Your task to perform on an android device: Show the shopping cart on amazon.com. Image 0: 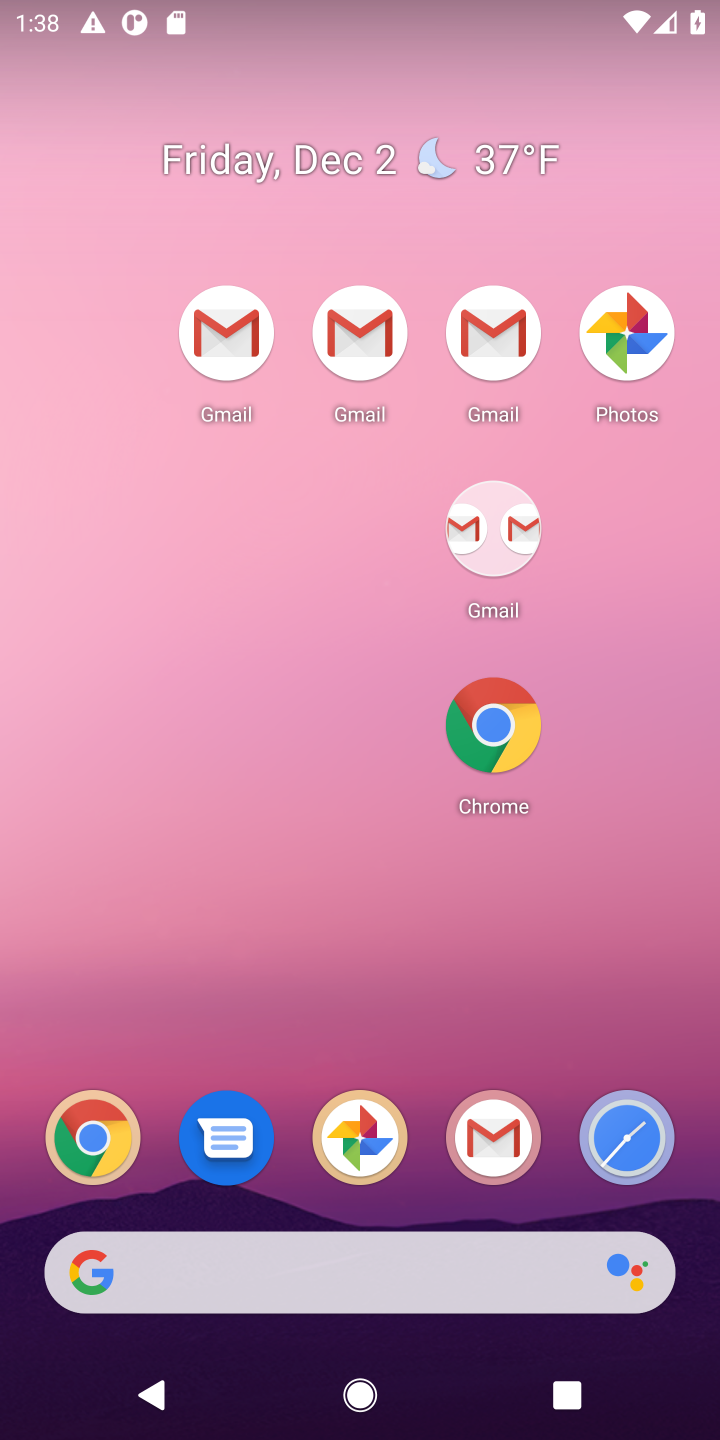
Step 0: drag from (197, 967) to (338, 160)
Your task to perform on an android device: Show the shopping cart on amazon.com. Image 1: 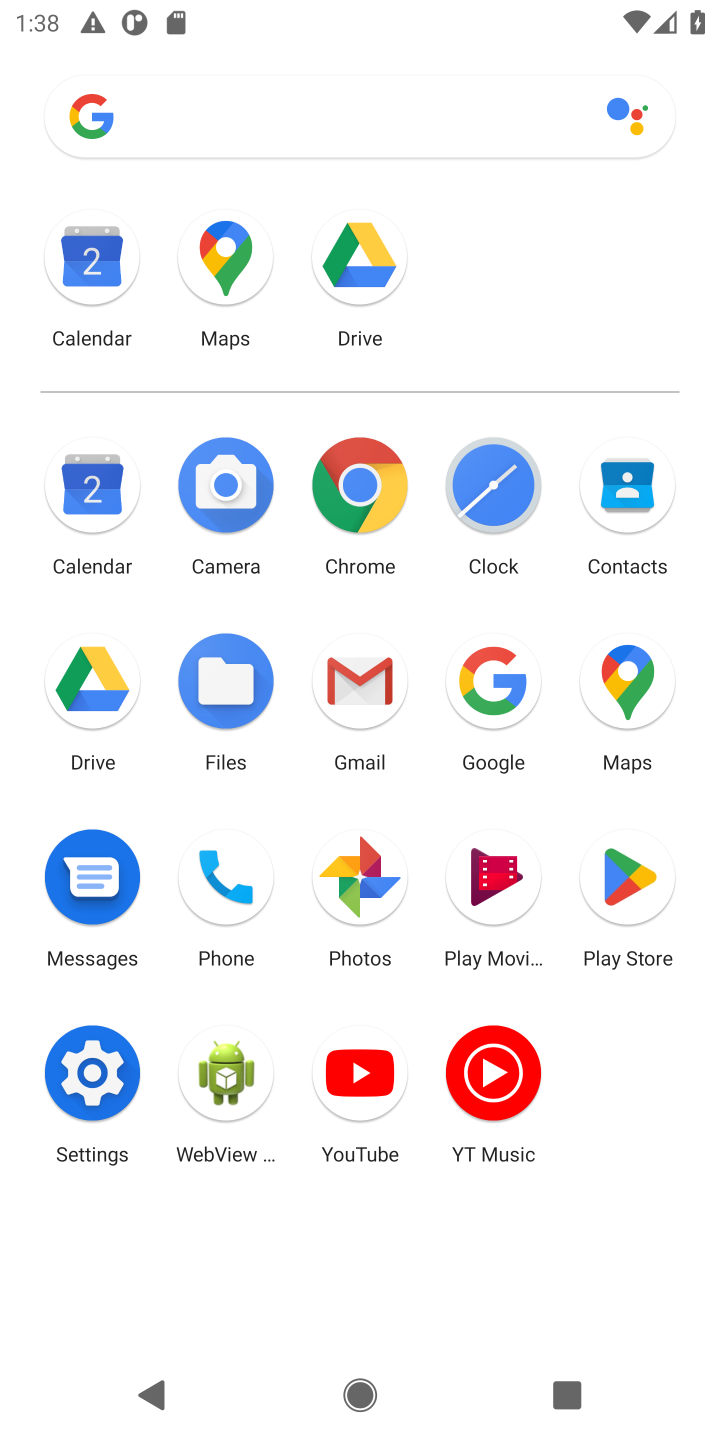
Step 1: click (477, 706)
Your task to perform on an android device: Show the shopping cart on amazon.com. Image 2: 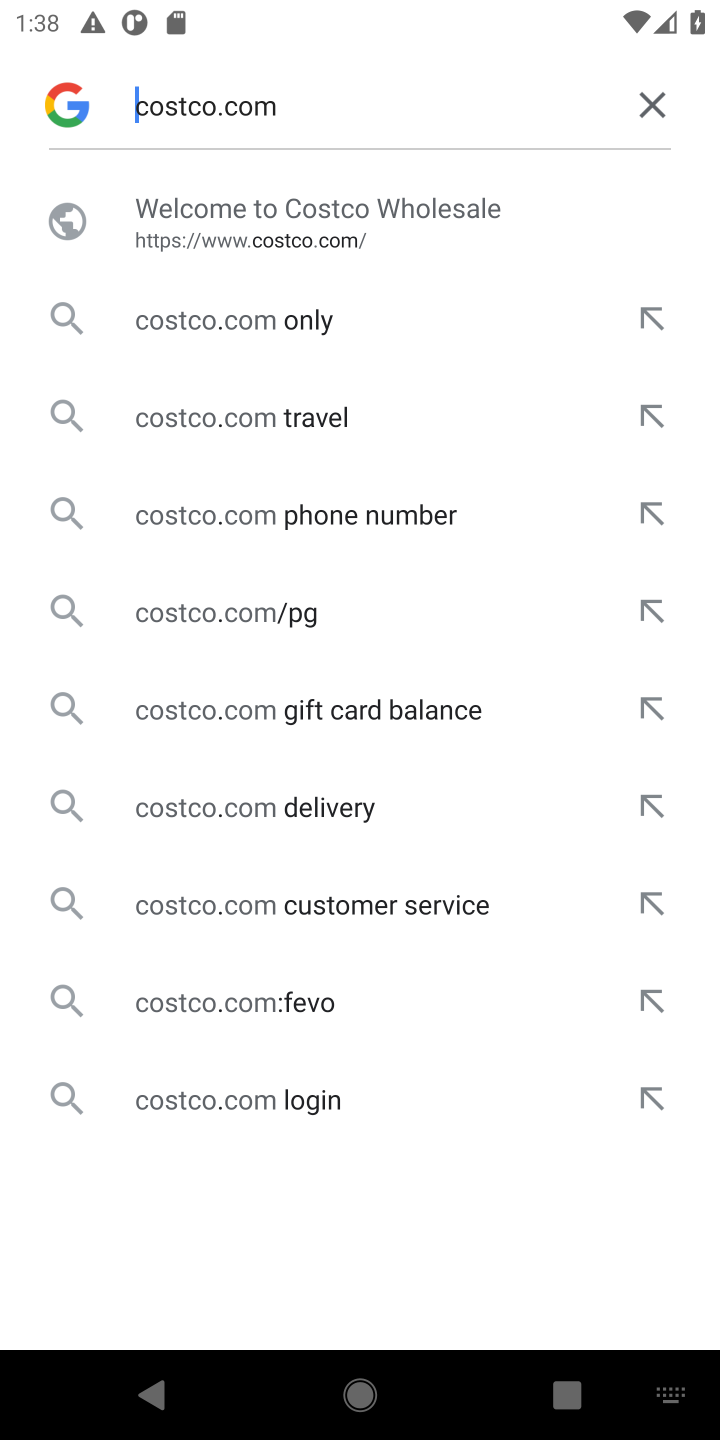
Step 2: click (663, 108)
Your task to perform on an android device: Show the shopping cart on amazon.com. Image 3: 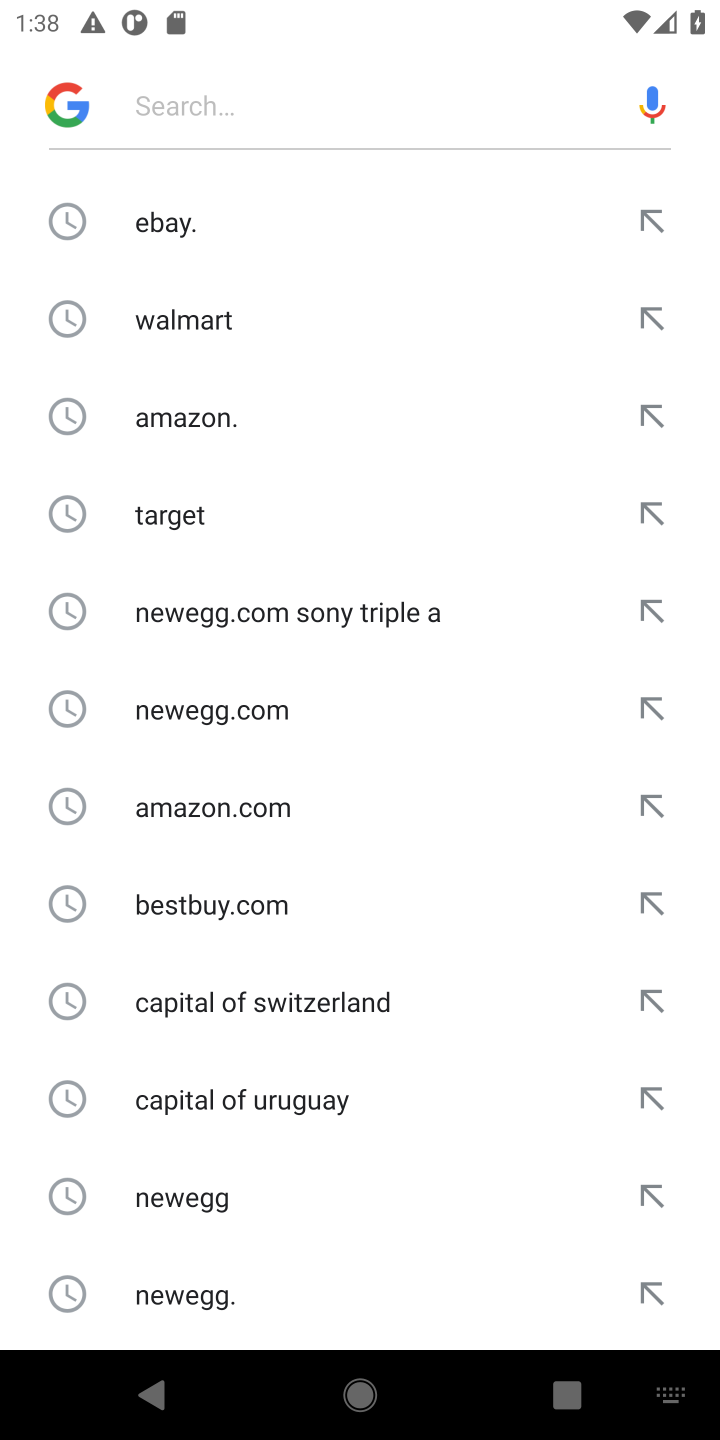
Step 3: click (266, 414)
Your task to perform on an android device: Show the shopping cart on amazon.com. Image 4: 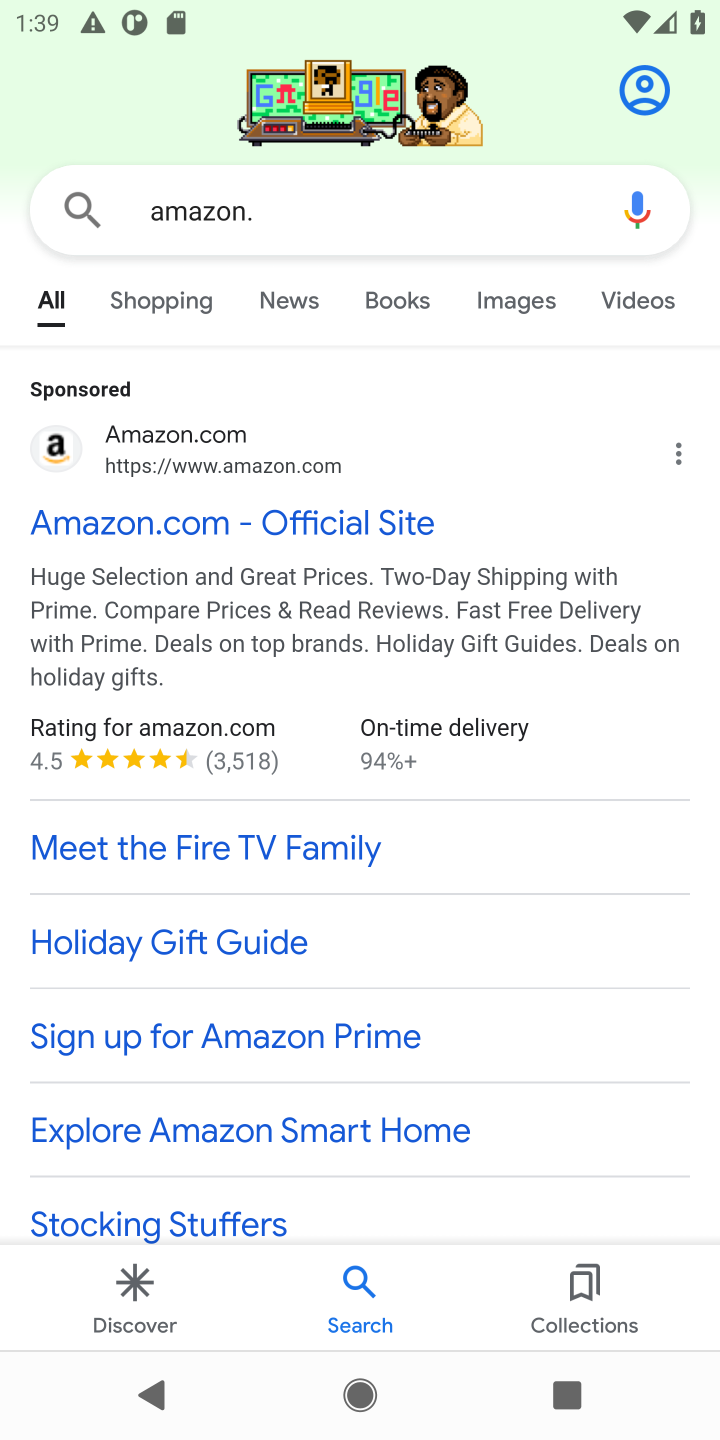
Step 4: click (365, 522)
Your task to perform on an android device: Show the shopping cart on amazon.com. Image 5: 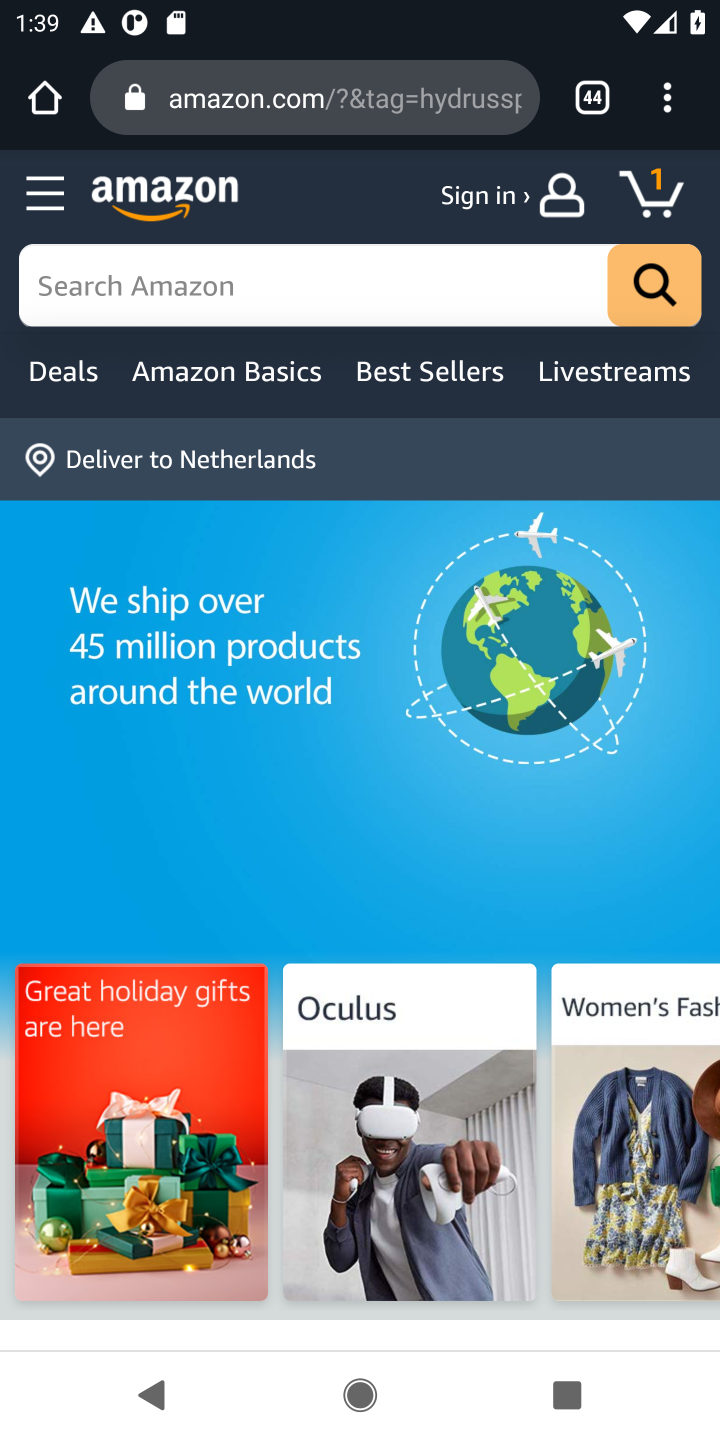
Step 5: click (656, 191)
Your task to perform on an android device: Show the shopping cart on amazon.com. Image 6: 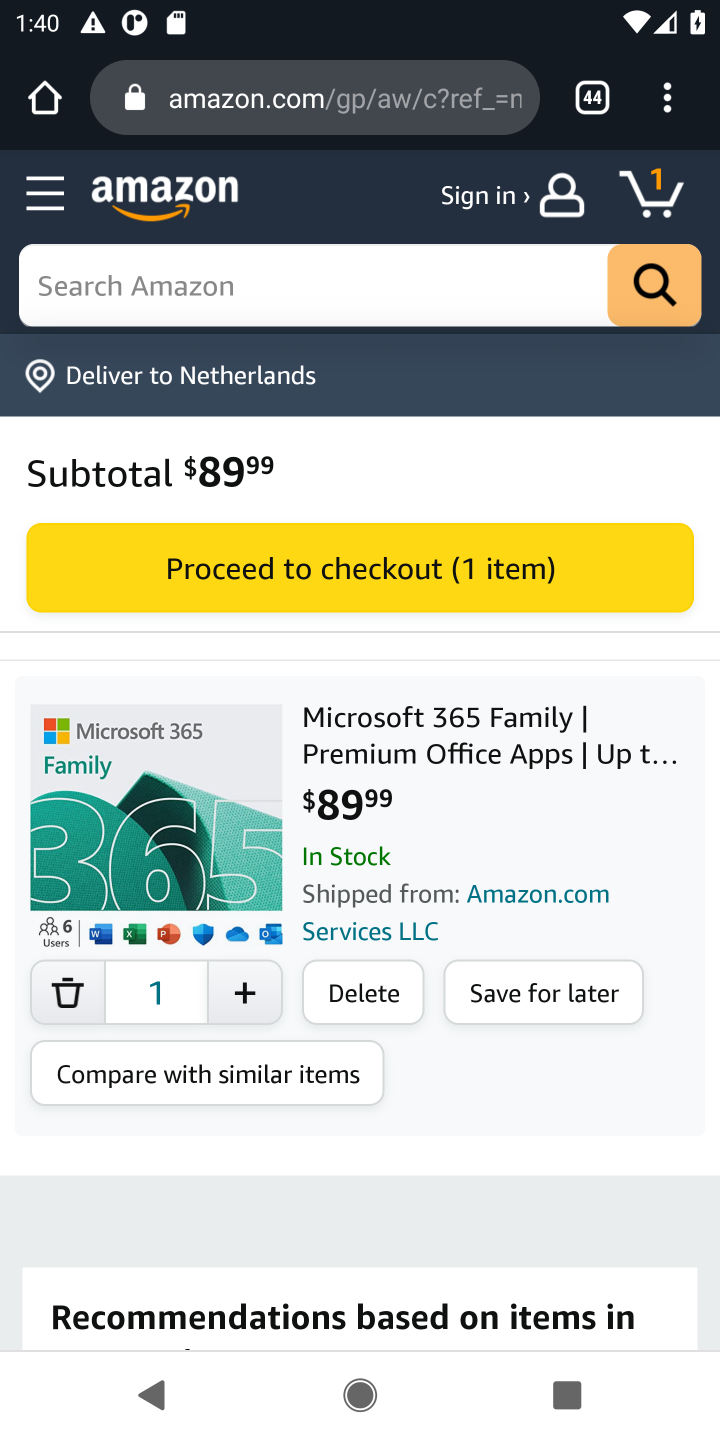
Step 6: task complete